Your task to perform on an android device: Open Youtube and go to the subscriptions tab Image 0: 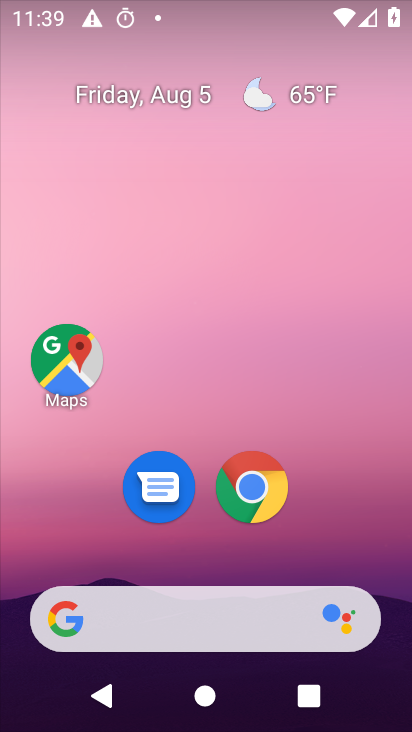
Step 0: drag from (195, 581) to (279, 65)
Your task to perform on an android device: Open Youtube and go to the subscriptions tab Image 1: 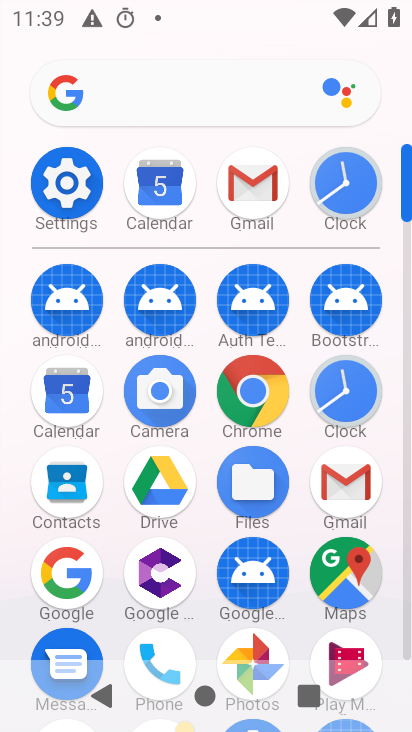
Step 1: drag from (171, 589) to (245, 55)
Your task to perform on an android device: Open Youtube and go to the subscriptions tab Image 2: 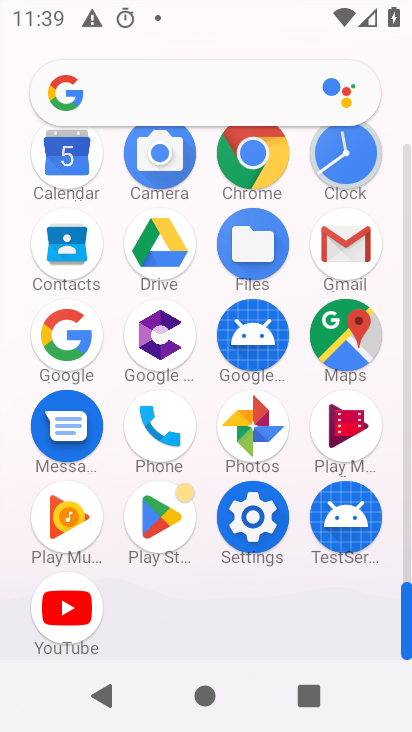
Step 2: click (54, 630)
Your task to perform on an android device: Open Youtube and go to the subscriptions tab Image 3: 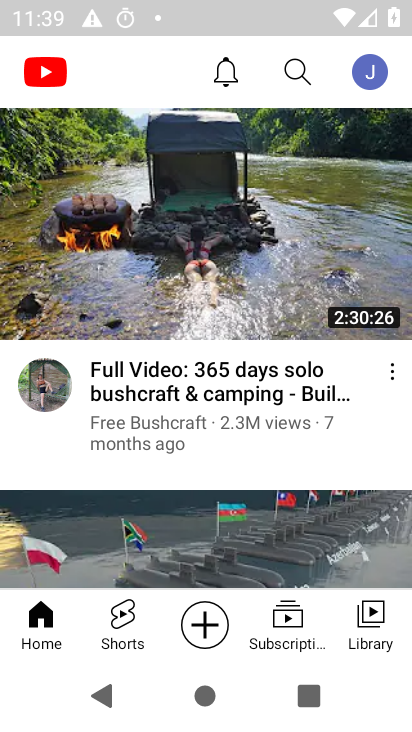
Step 3: click (288, 628)
Your task to perform on an android device: Open Youtube and go to the subscriptions tab Image 4: 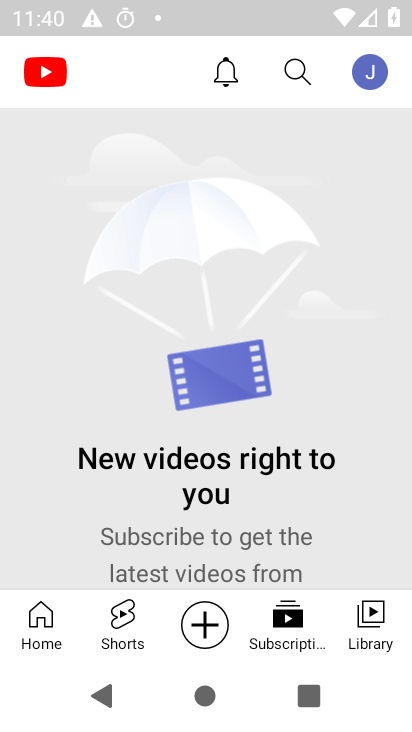
Step 4: click (285, 634)
Your task to perform on an android device: Open Youtube and go to the subscriptions tab Image 5: 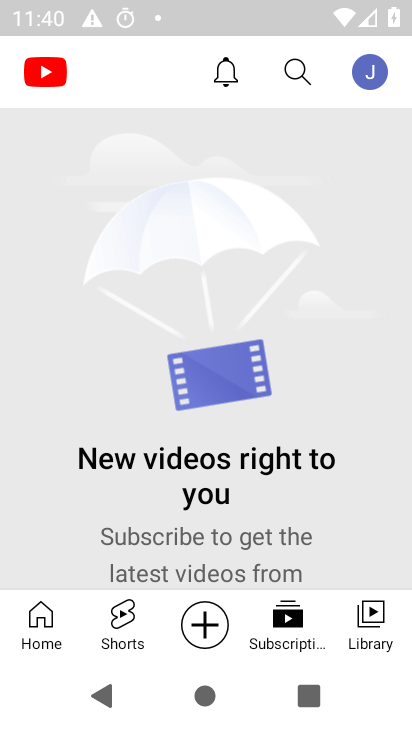
Step 5: task complete